Your task to perform on an android device: Show me popular games on the Play Store Image 0: 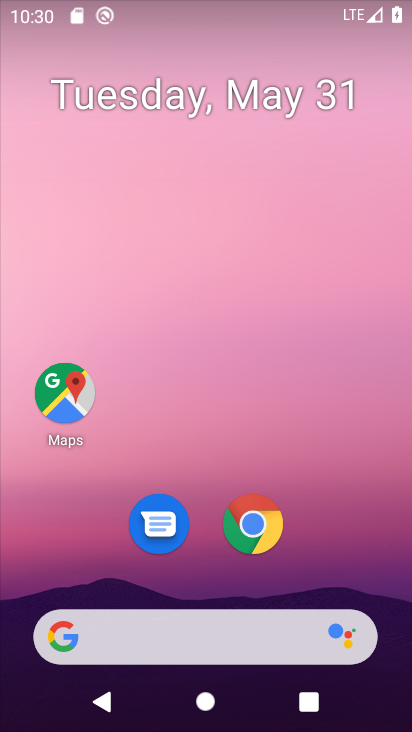
Step 0: drag from (338, 538) to (345, 44)
Your task to perform on an android device: Show me popular games on the Play Store Image 1: 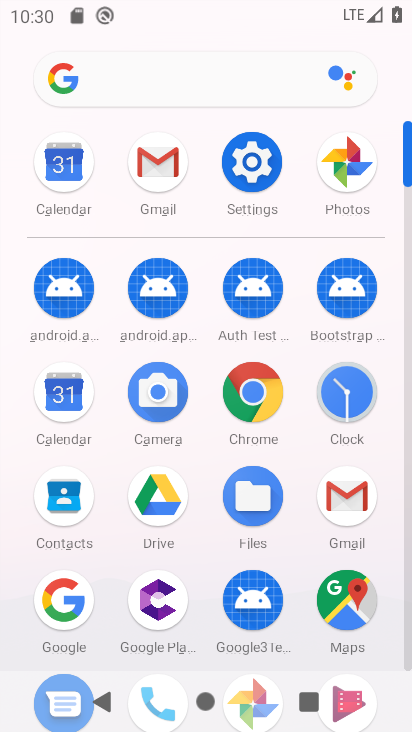
Step 1: drag from (213, 421) to (228, 151)
Your task to perform on an android device: Show me popular games on the Play Store Image 2: 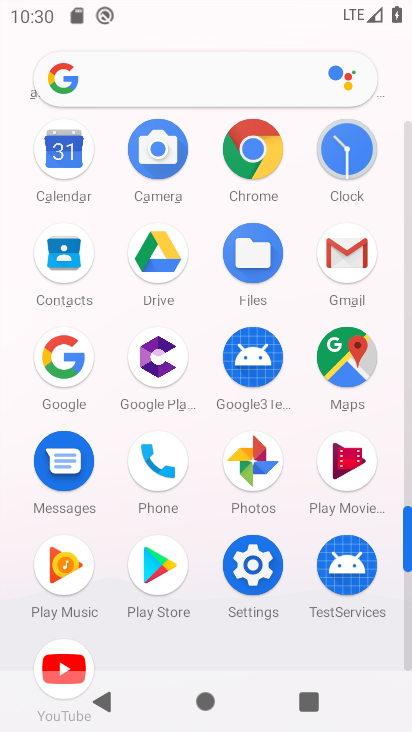
Step 2: click (159, 567)
Your task to perform on an android device: Show me popular games on the Play Store Image 3: 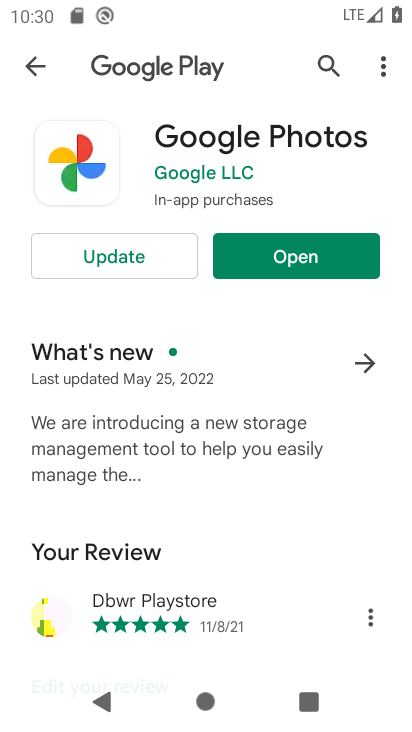
Step 3: click (38, 65)
Your task to perform on an android device: Show me popular games on the Play Store Image 4: 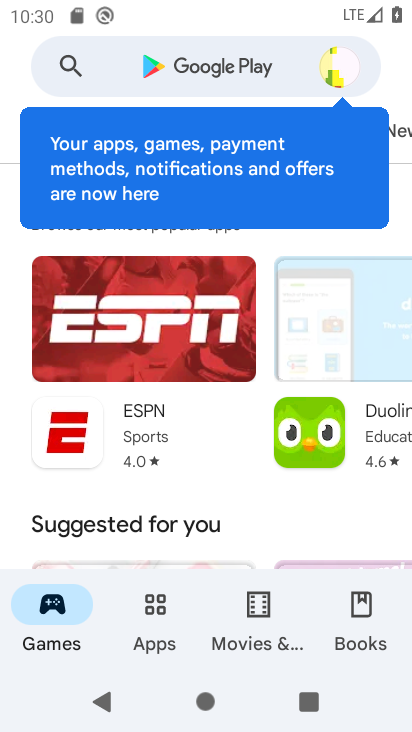
Step 4: click (56, 617)
Your task to perform on an android device: Show me popular games on the Play Store Image 5: 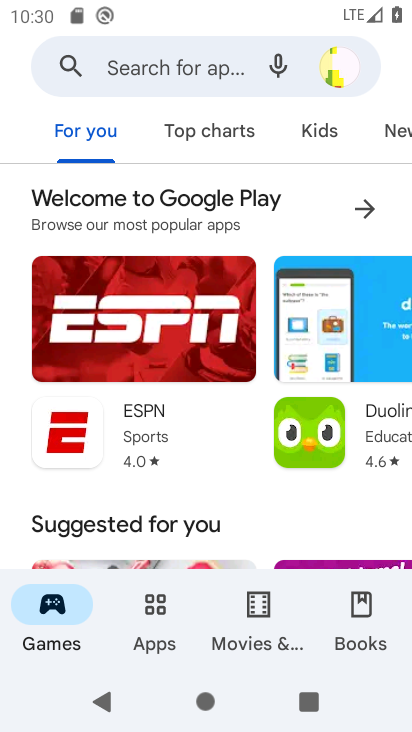
Step 5: drag from (243, 470) to (261, 67)
Your task to perform on an android device: Show me popular games on the Play Store Image 6: 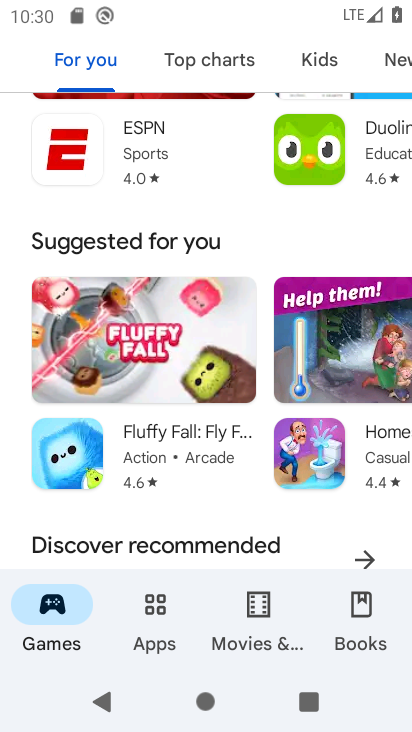
Step 6: drag from (237, 440) to (262, 24)
Your task to perform on an android device: Show me popular games on the Play Store Image 7: 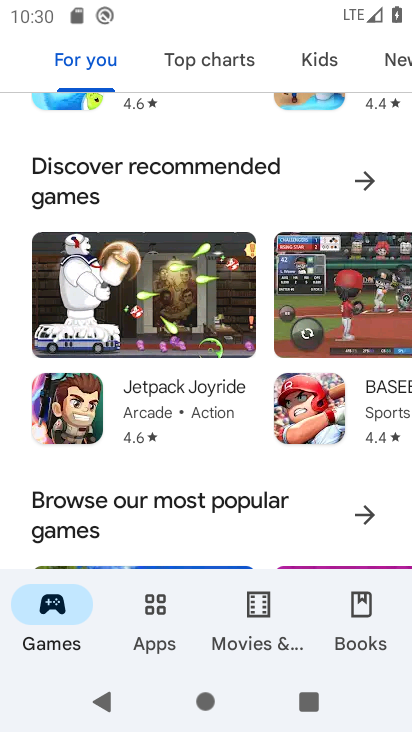
Step 7: click (362, 507)
Your task to perform on an android device: Show me popular games on the Play Store Image 8: 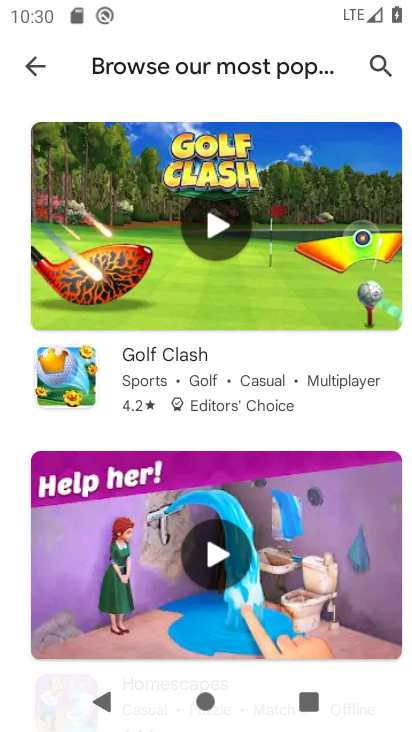
Step 8: task complete